Your task to perform on an android device: toggle improve location accuracy Image 0: 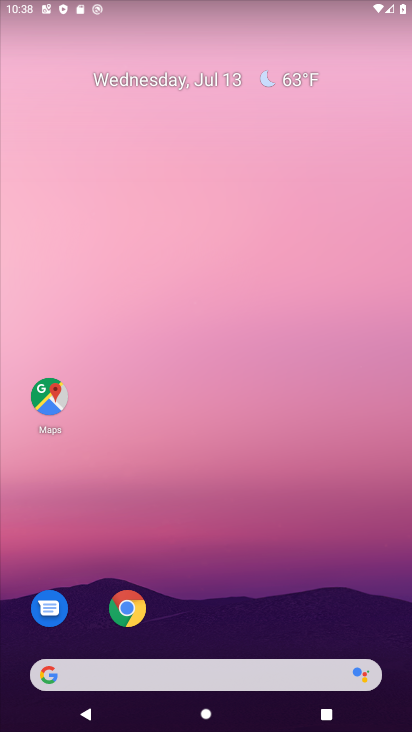
Step 0: drag from (147, 577) to (315, 55)
Your task to perform on an android device: toggle improve location accuracy Image 1: 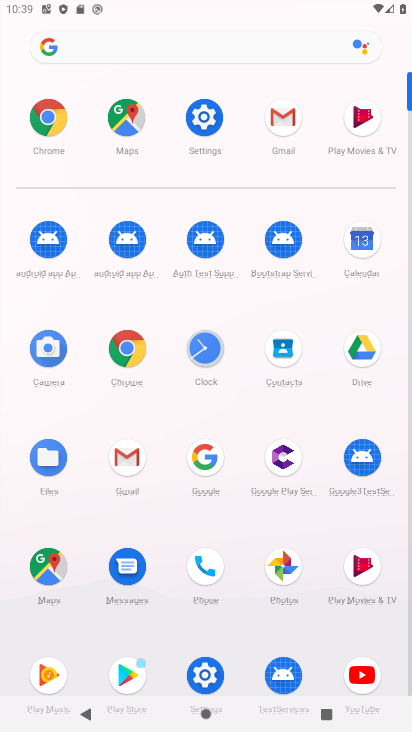
Step 1: click (211, 665)
Your task to perform on an android device: toggle improve location accuracy Image 2: 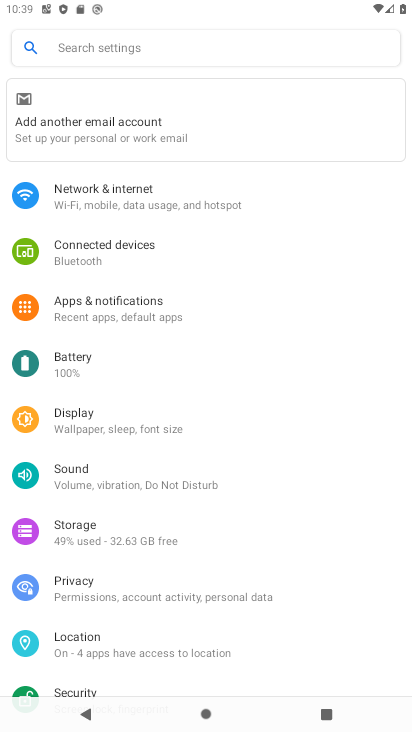
Step 2: drag from (75, 602) to (75, 348)
Your task to perform on an android device: toggle improve location accuracy Image 3: 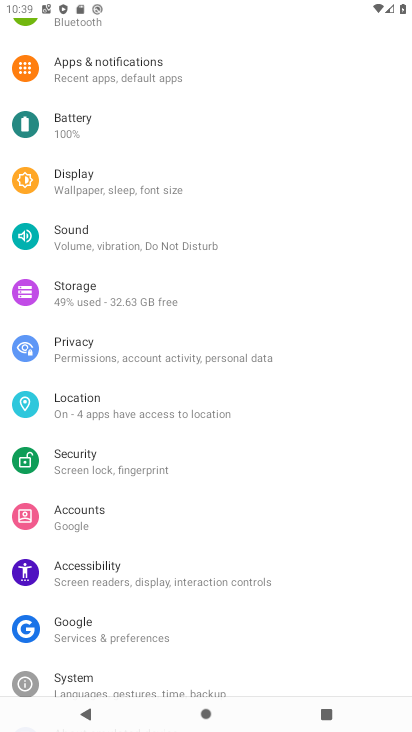
Step 3: click (82, 396)
Your task to perform on an android device: toggle improve location accuracy Image 4: 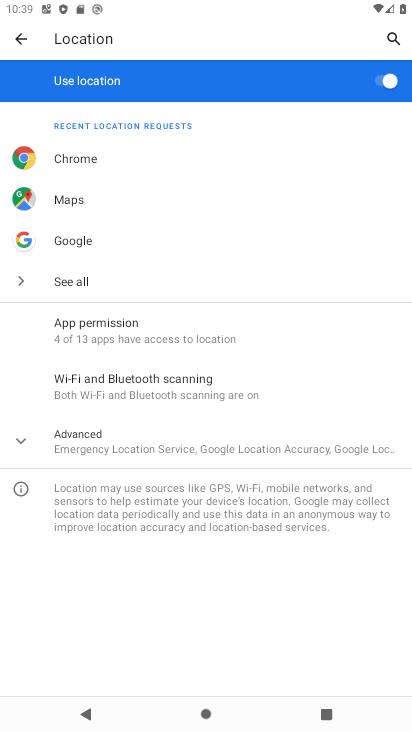
Step 4: click (192, 452)
Your task to perform on an android device: toggle improve location accuracy Image 5: 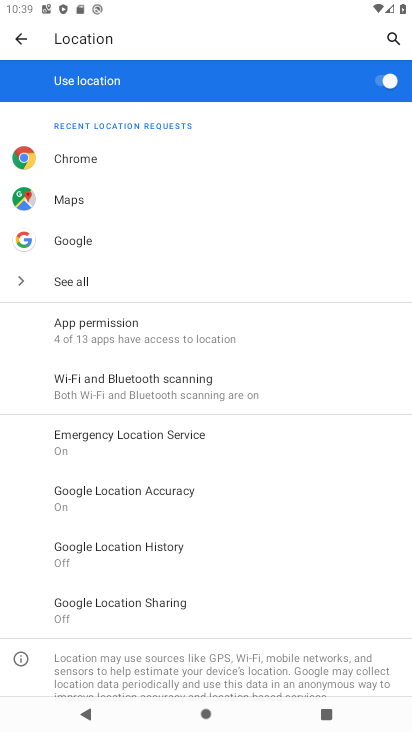
Step 5: click (178, 480)
Your task to perform on an android device: toggle improve location accuracy Image 6: 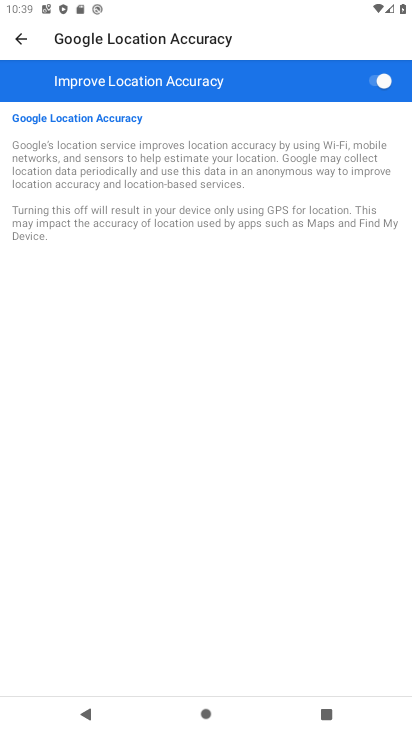
Step 6: click (372, 84)
Your task to perform on an android device: toggle improve location accuracy Image 7: 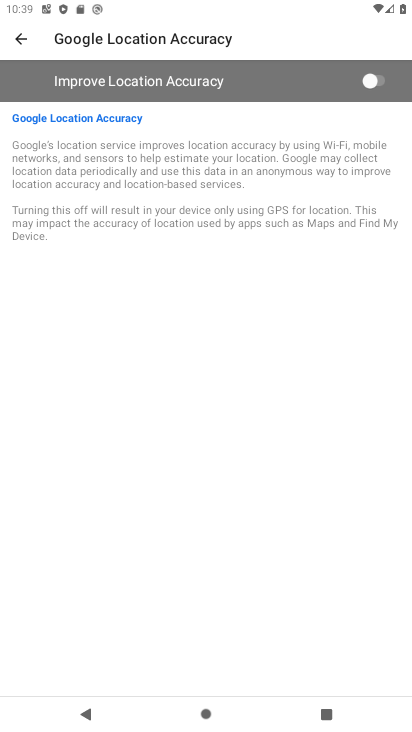
Step 7: task complete